Your task to perform on an android device: turn on javascript in the chrome app Image 0: 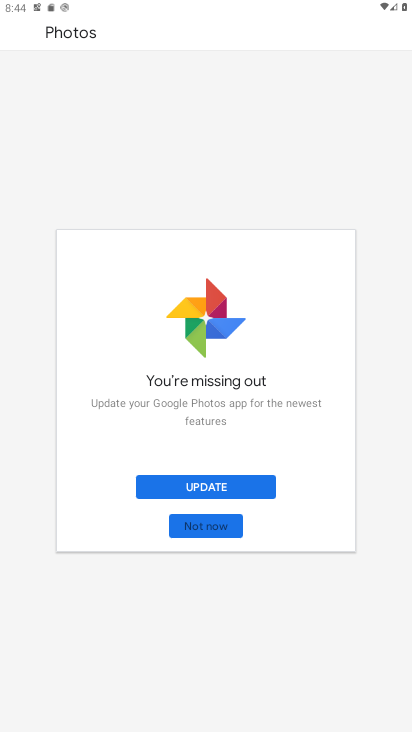
Step 0: press home button
Your task to perform on an android device: turn on javascript in the chrome app Image 1: 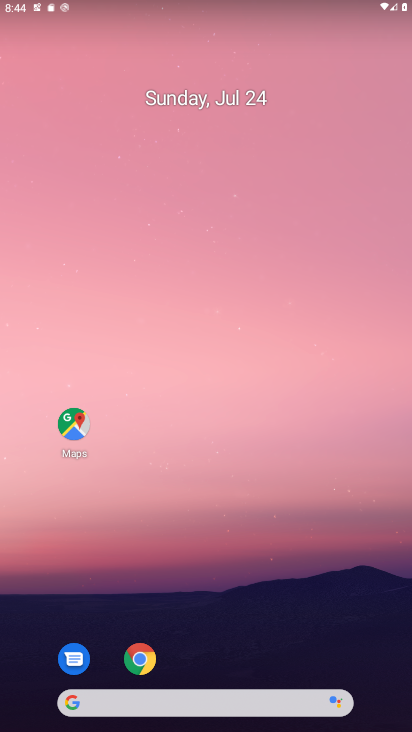
Step 1: drag from (239, 721) to (235, 202)
Your task to perform on an android device: turn on javascript in the chrome app Image 2: 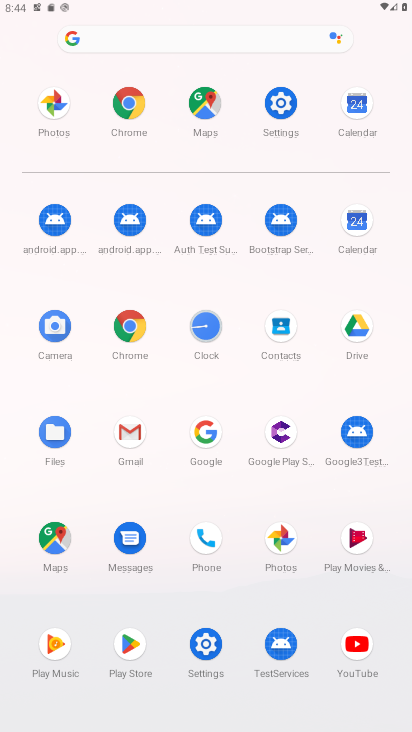
Step 2: click (133, 328)
Your task to perform on an android device: turn on javascript in the chrome app Image 3: 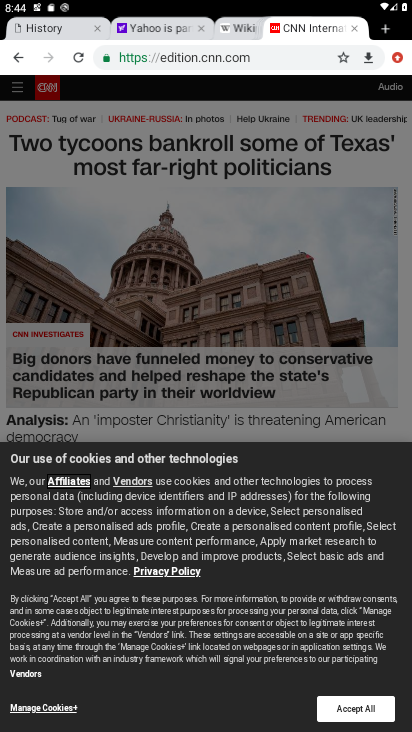
Step 3: click (398, 57)
Your task to perform on an android device: turn on javascript in the chrome app Image 4: 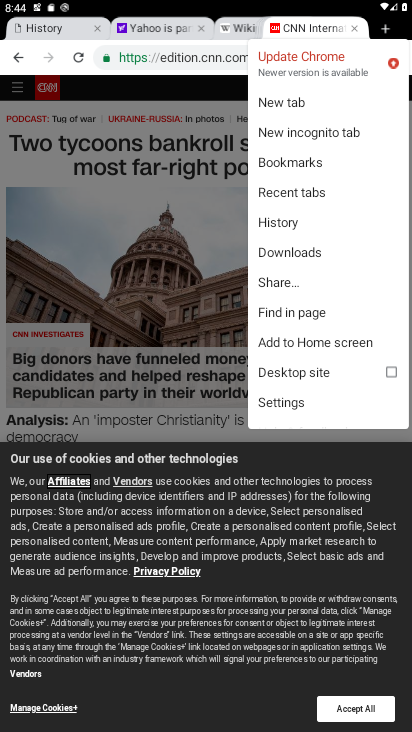
Step 4: click (285, 403)
Your task to perform on an android device: turn on javascript in the chrome app Image 5: 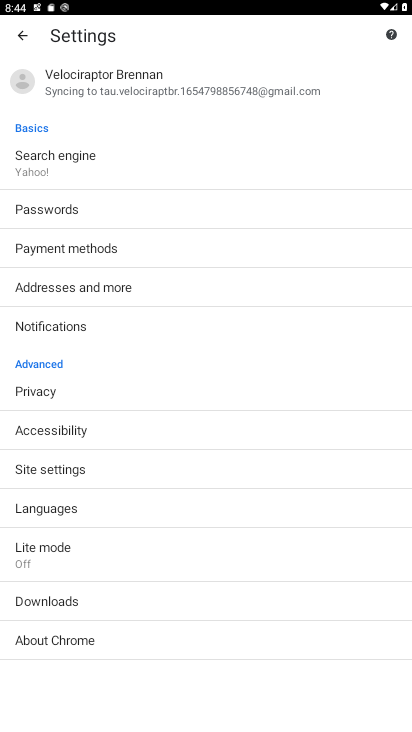
Step 5: click (57, 466)
Your task to perform on an android device: turn on javascript in the chrome app Image 6: 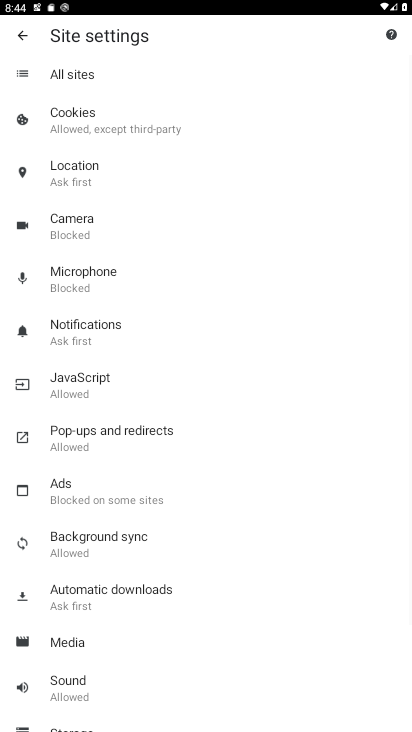
Step 6: click (69, 378)
Your task to perform on an android device: turn on javascript in the chrome app Image 7: 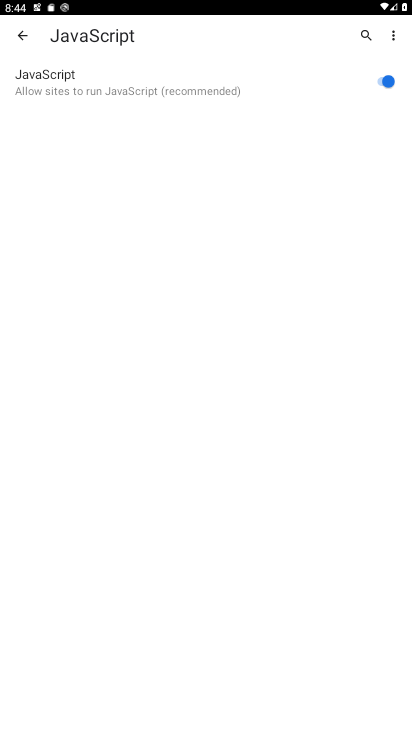
Step 7: task complete